Your task to perform on an android device: What is the news today? Image 0: 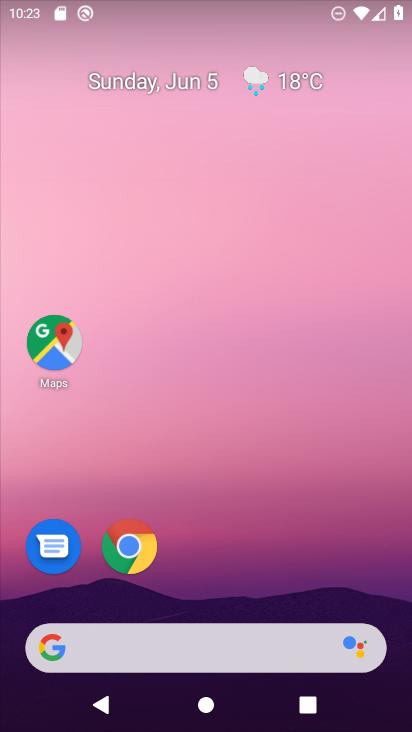
Step 0: drag from (174, 598) to (237, 214)
Your task to perform on an android device: What is the news today? Image 1: 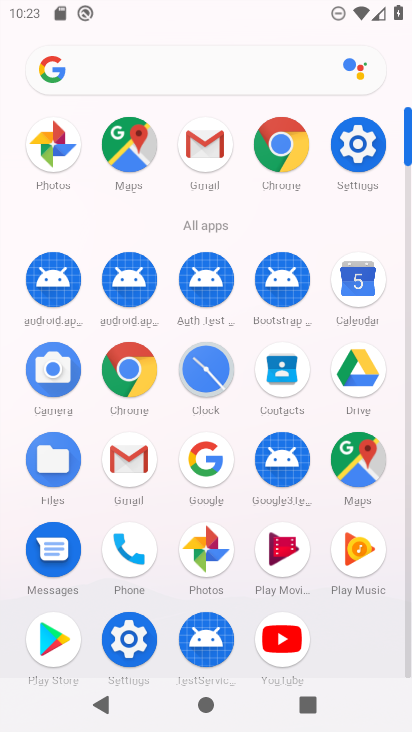
Step 1: click (185, 69)
Your task to perform on an android device: What is the news today? Image 2: 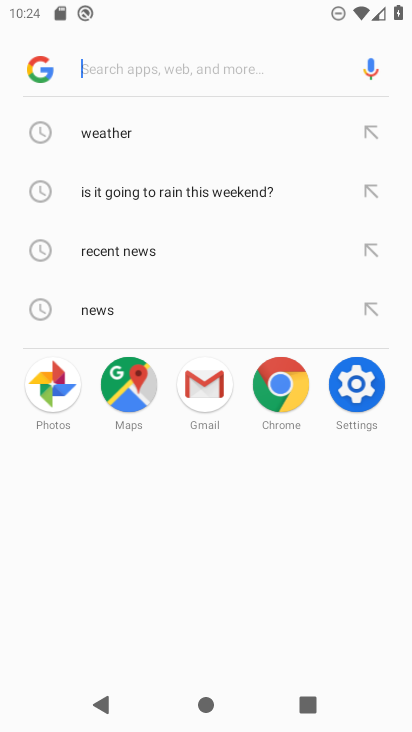
Step 2: type "news today"
Your task to perform on an android device: What is the news today? Image 3: 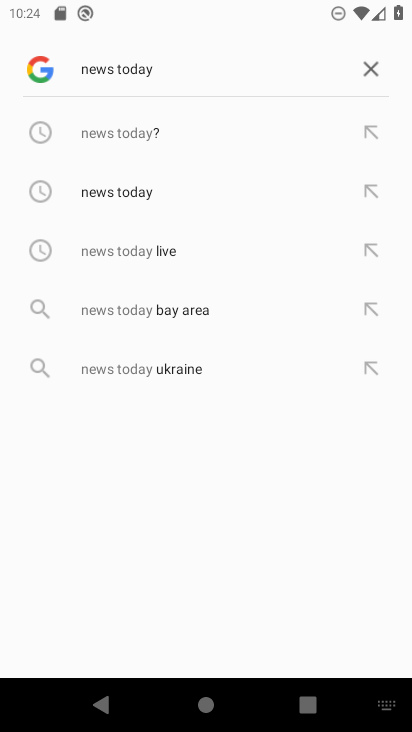
Step 3: click (154, 135)
Your task to perform on an android device: What is the news today? Image 4: 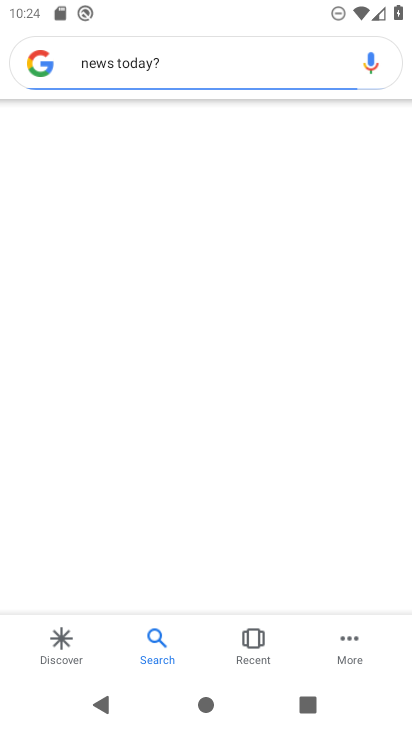
Step 4: task complete